Your task to perform on an android device: open a new tab in the chrome app Image 0: 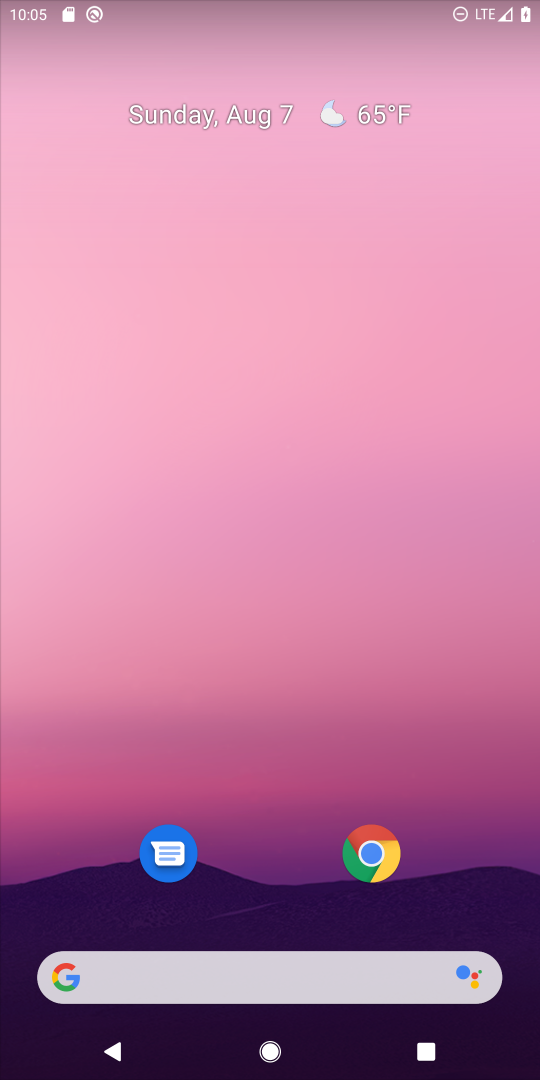
Step 0: drag from (234, 947) to (275, 0)
Your task to perform on an android device: open a new tab in the chrome app Image 1: 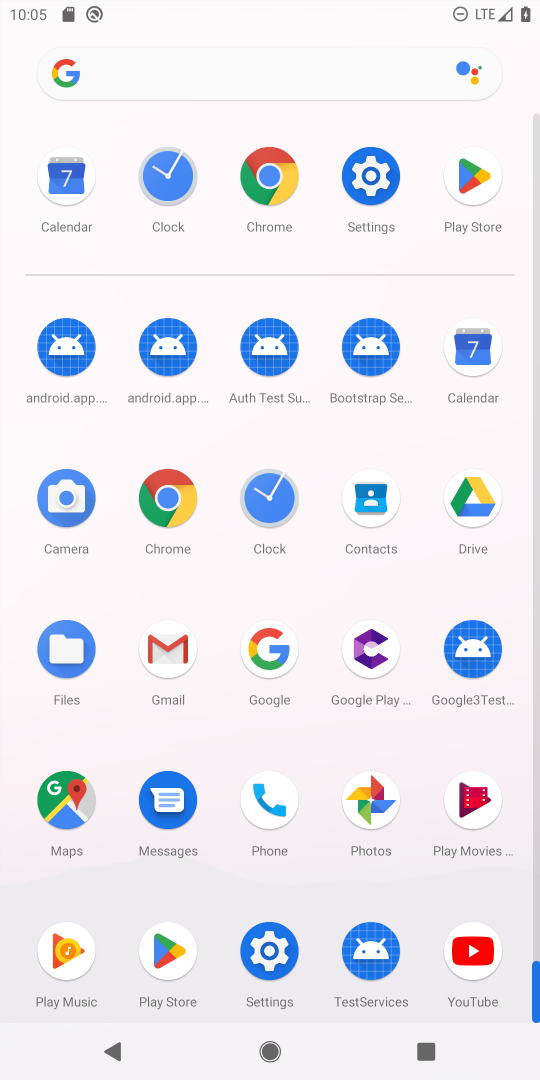
Step 1: click (156, 502)
Your task to perform on an android device: open a new tab in the chrome app Image 2: 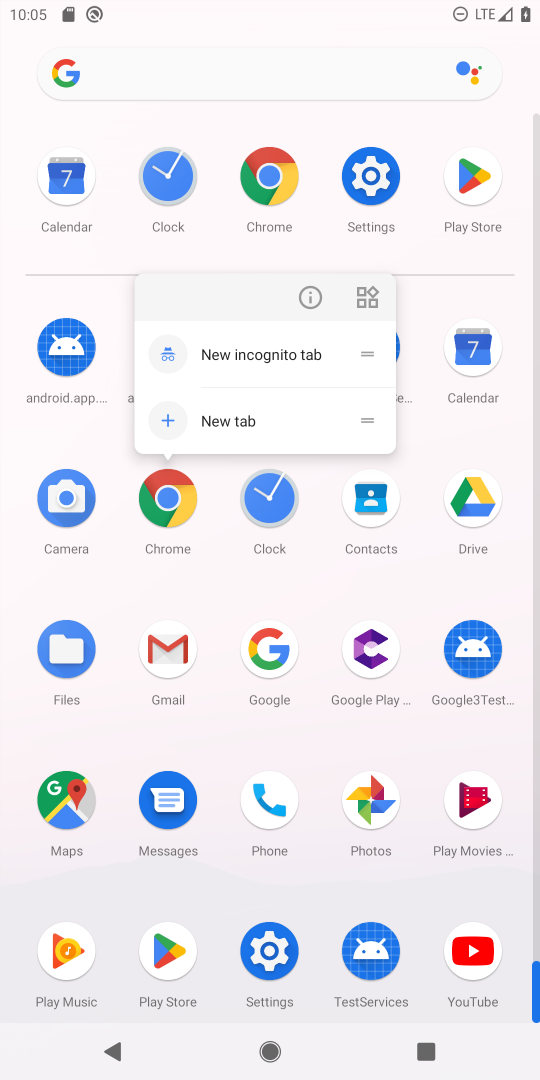
Step 2: click (141, 518)
Your task to perform on an android device: open a new tab in the chrome app Image 3: 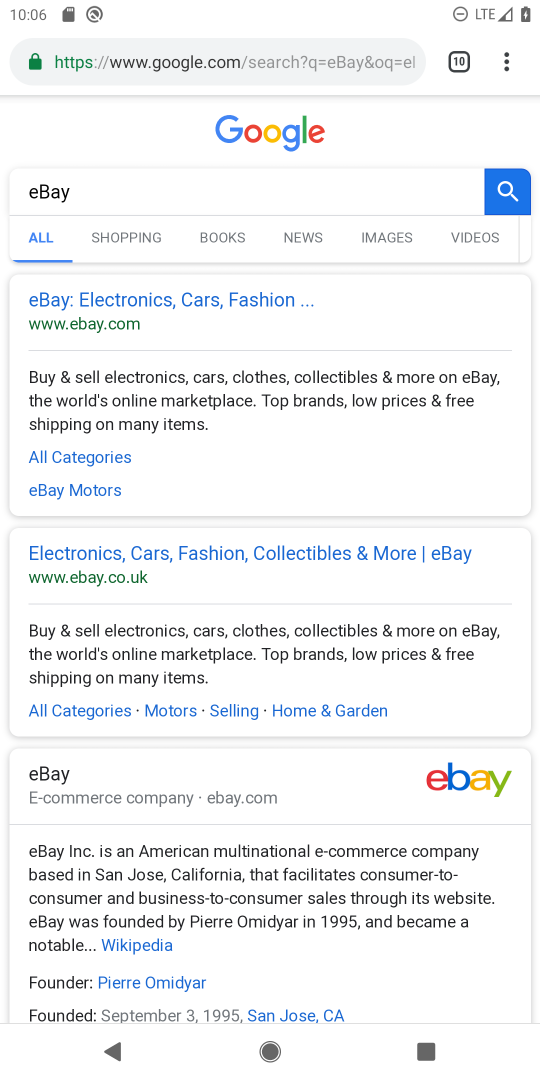
Step 3: click (493, 58)
Your task to perform on an android device: open a new tab in the chrome app Image 4: 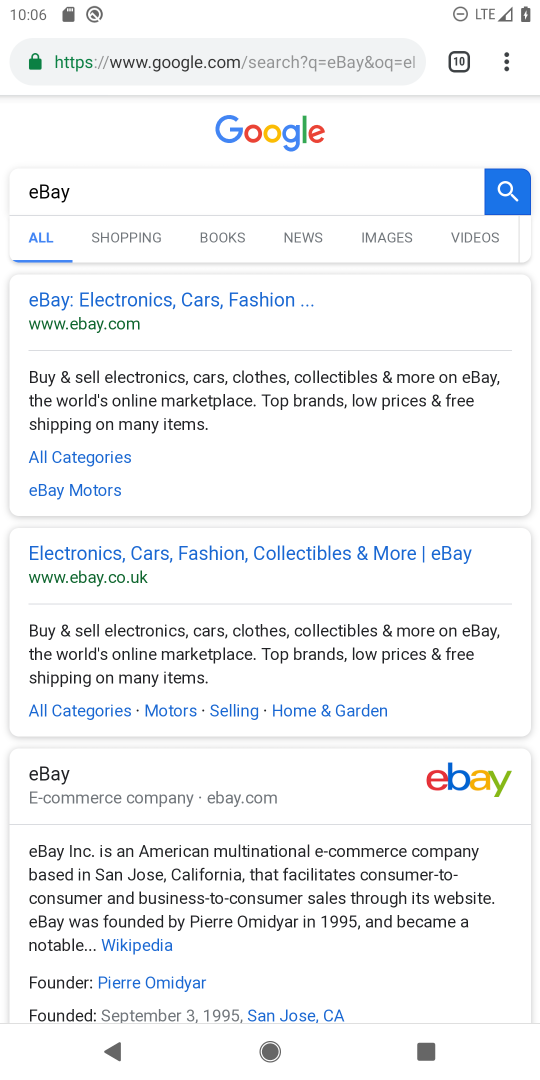
Step 4: click (506, 49)
Your task to perform on an android device: open a new tab in the chrome app Image 5: 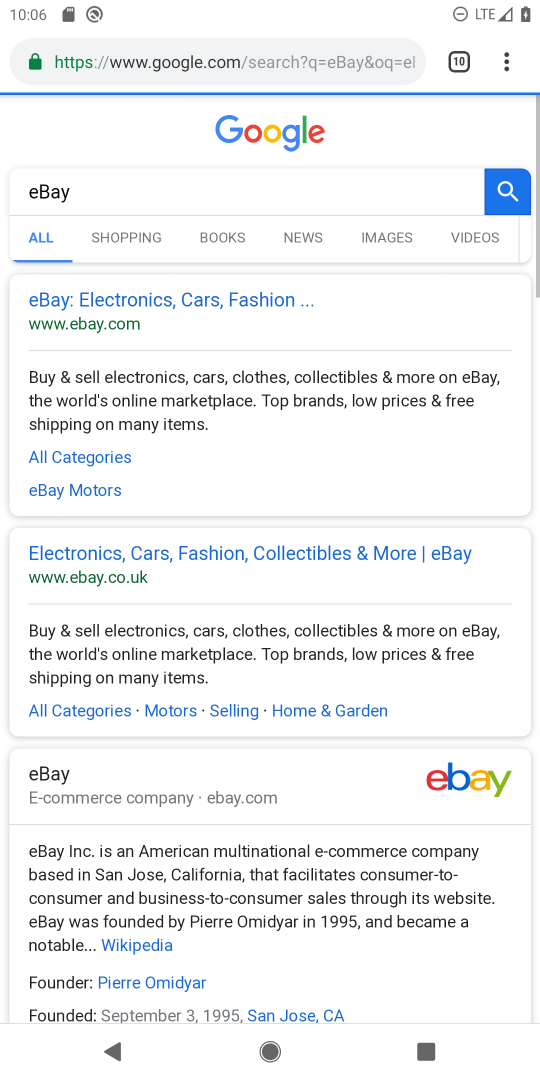
Step 5: click (506, 52)
Your task to perform on an android device: open a new tab in the chrome app Image 6: 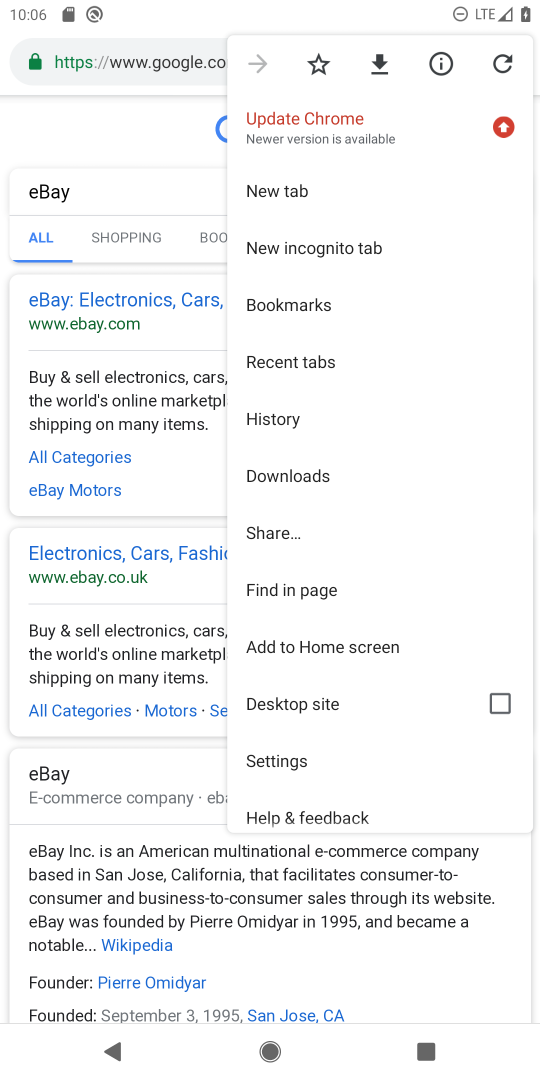
Step 6: click (313, 186)
Your task to perform on an android device: open a new tab in the chrome app Image 7: 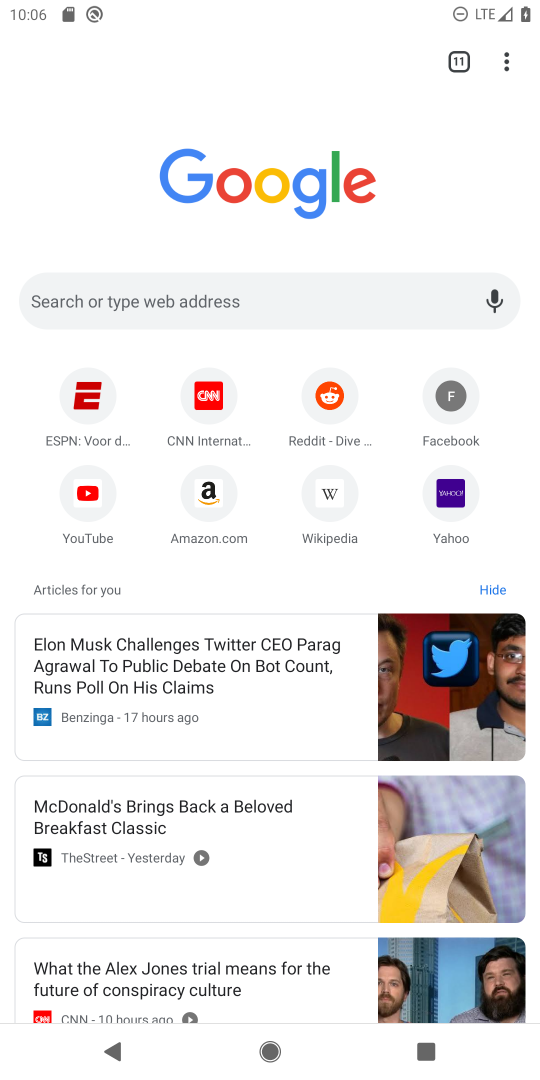
Step 7: task complete